Your task to perform on an android device: Search for pizza restaurants on Maps Image 0: 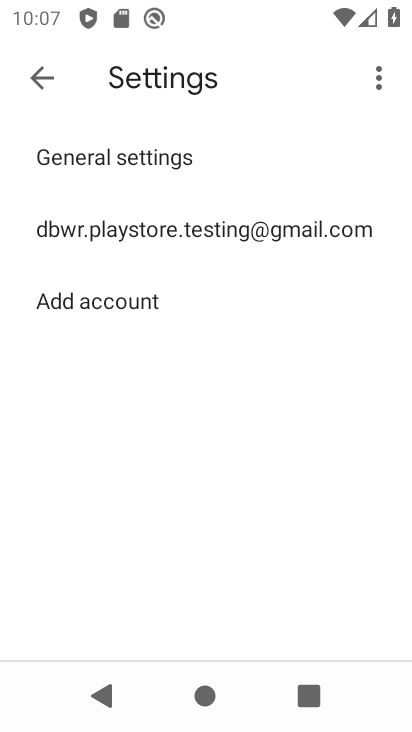
Step 0: press home button
Your task to perform on an android device: Search for pizza restaurants on Maps Image 1: 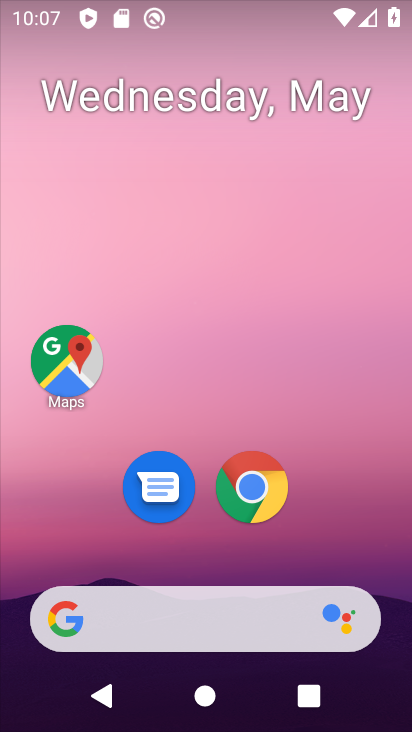
Step 1: click (67, 353)
Your task to perform on an android device: Search for pizza restaurants on Maps Image 2: 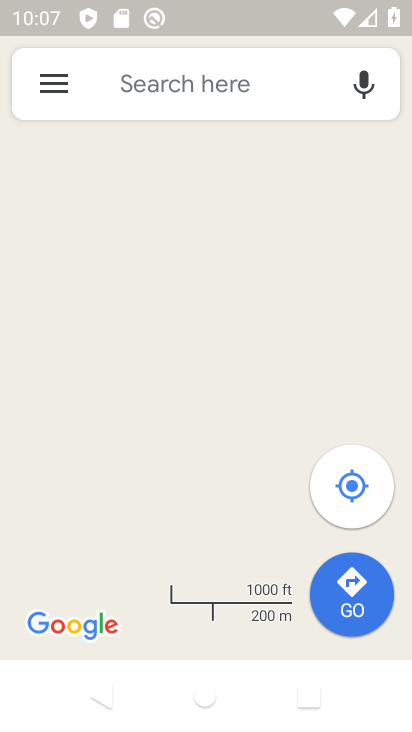
Step 2: click (209, 93)
Your task to perform on an android device: Search for pizza restaurants on Maps Image 3: 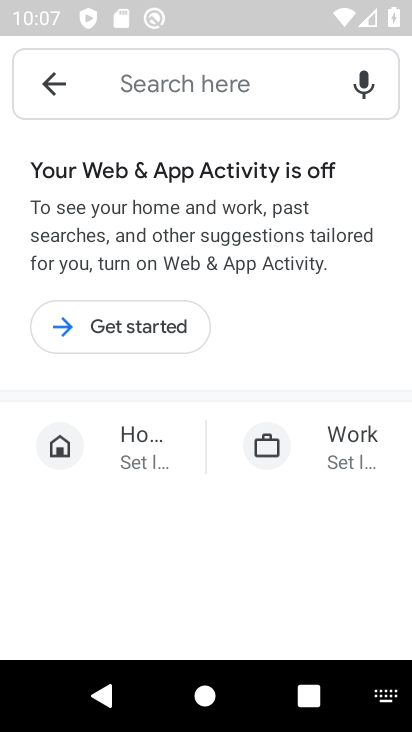
Step 3: click (139, 311)
Your task to perform on an android device: Search for pizza restaurants on Maps Image 4: 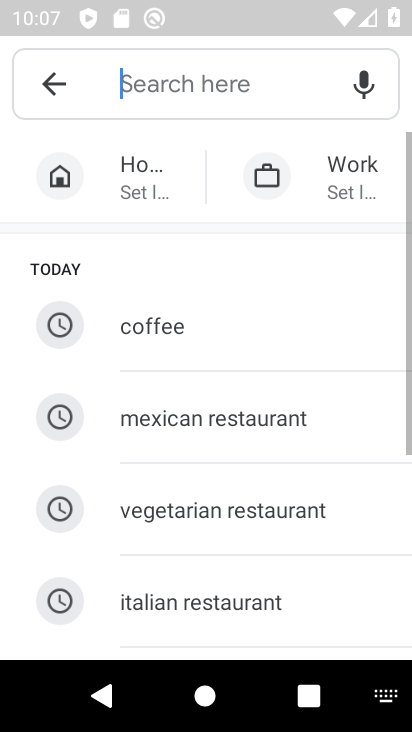
Step 4: click (132, 322)
Your task to perform on an android device: Search for pizza restaurants on Maps Image 5: 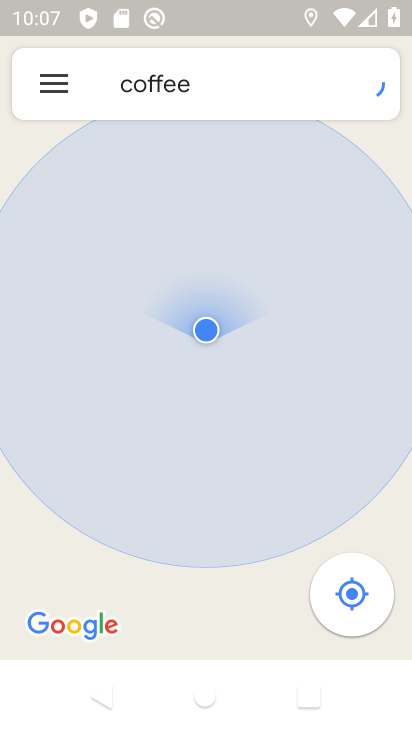
Step 5: click (186, 83)
Your task to perform on an android device: Search for pizza restaurants on Maps Image 6: 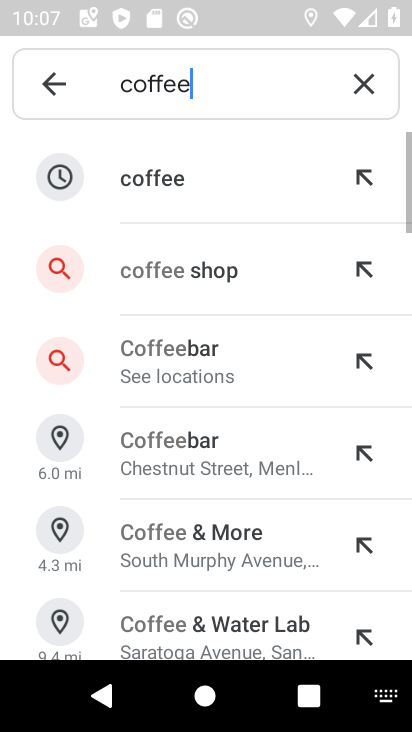
Step 6: click (366, 85)
Your task to perform on an android device: Search for pizza restaurants on Maps Image 7: 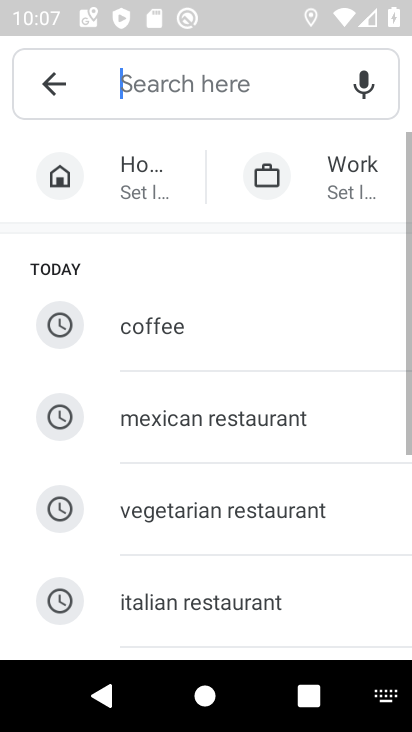
Step 7: click (188, 95)
Your task to perform on an android device: Search for pizza restaurants on Maps Image 8: 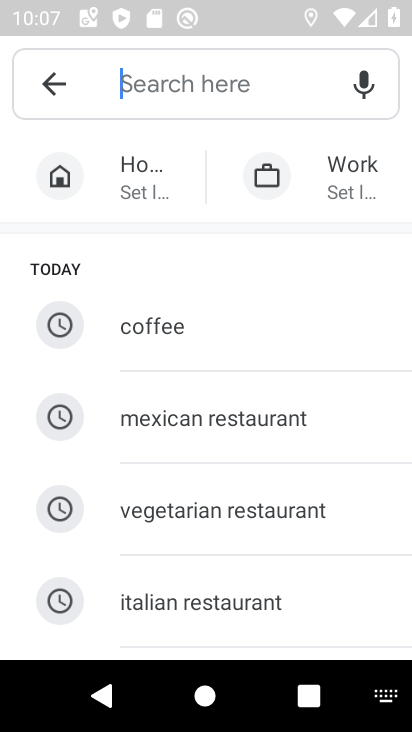
Step 8: drag from (238, 520) to (227, 123)
Your task to perform on an android device: Search for pizza restaurants on Maps Image 9: 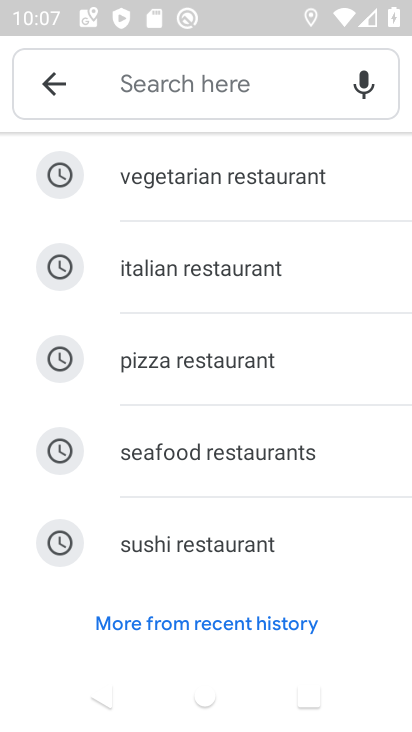
Step 9: click (189, 377)
Your task to perform on an android device: Search for pizza restaurants on Maps Image 10: 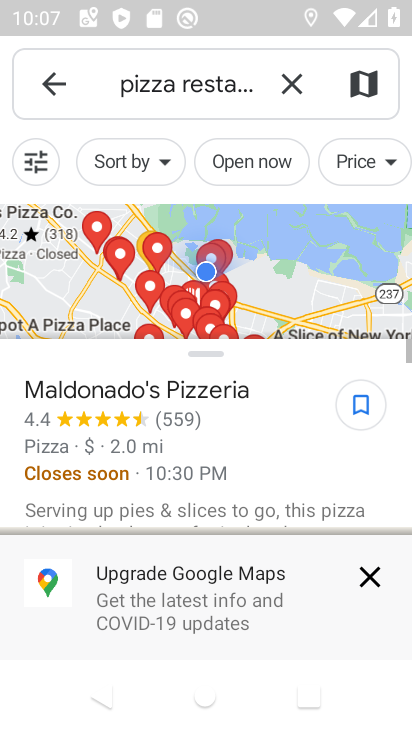
Step 10: task complete